Your task to perform on an android device: turn off translation in the chrome app Image 0: 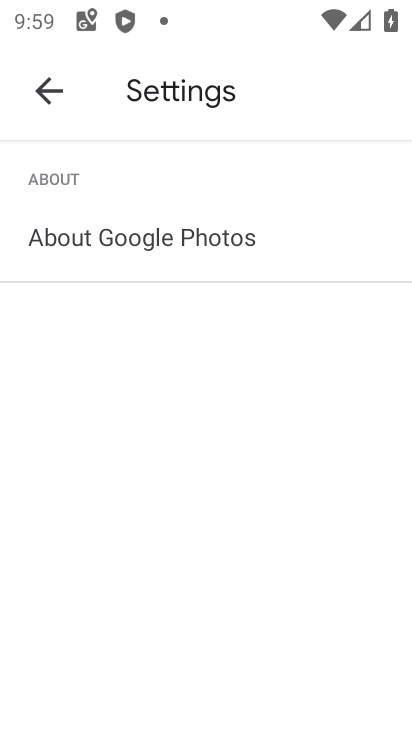
Step 0: press home button
Your task to perform on an android device: turn off translation in the chrome app Image 1: 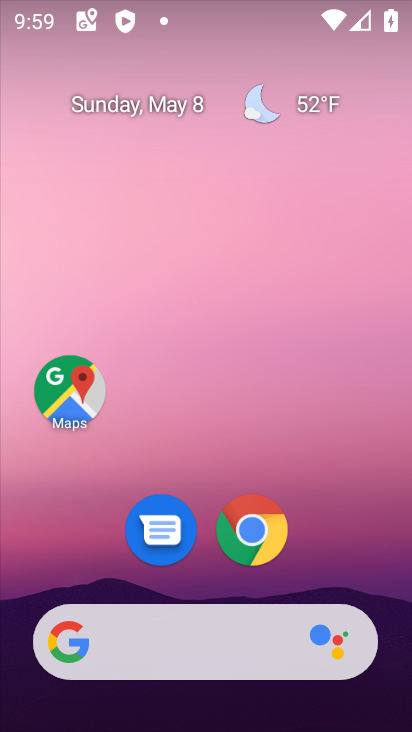
Step 1: drag from (371, 558) to (367, 84)
Your task to perform on an android device: turn off translation in the chrome app Image 2: 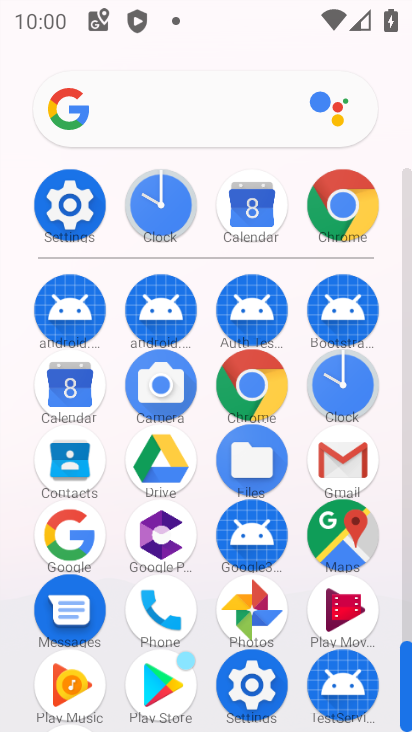
Step 2: click (266, 397)
Your task to perform on an android device: turn off translation in the chrome app Image 3: 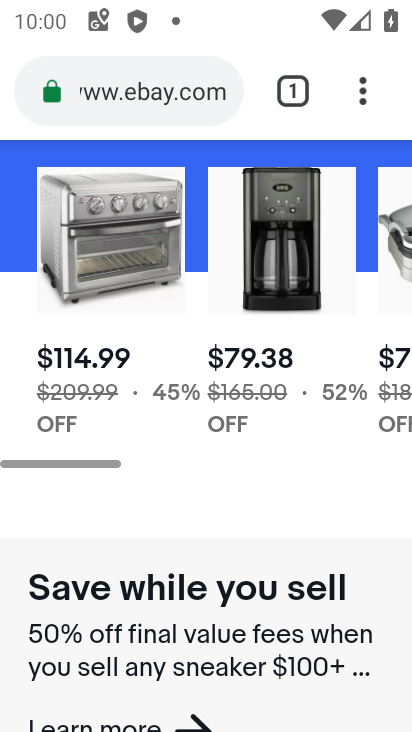
Step 3: drag from (363, 100) to (188, 549)
Your task to perform on an android device: turn off translation in the chrome app Image 4: 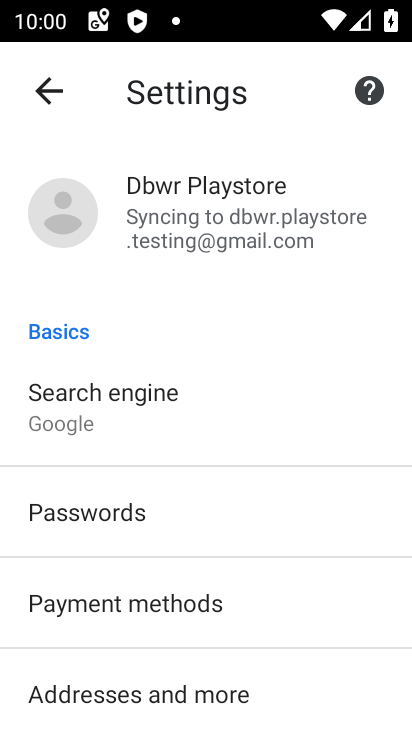
Step 4: drag from (298, 646) to (300, 380)
Your task to perform on an android device: turn off translation in the chrome app Image 5: 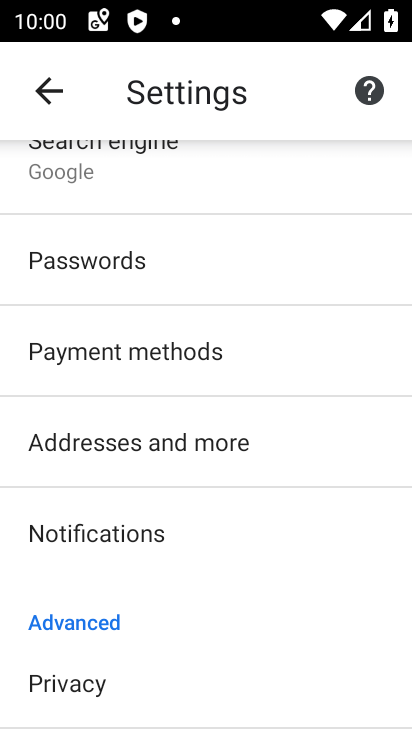
Step 5: drag from (267, 667) to (297, 356)
Your task to perform on an android device: turn off translation in the chrome app Image 6: 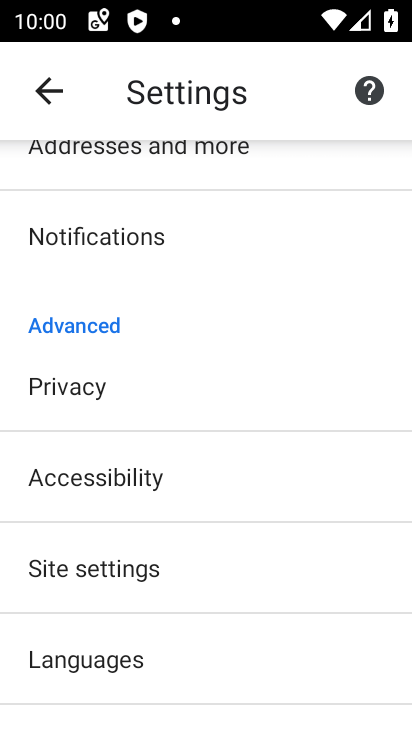
Step 6: drag from (253, 684) to (298, 309)
Your task to perform on an android device: turn off translation in the chrome app Image 7: 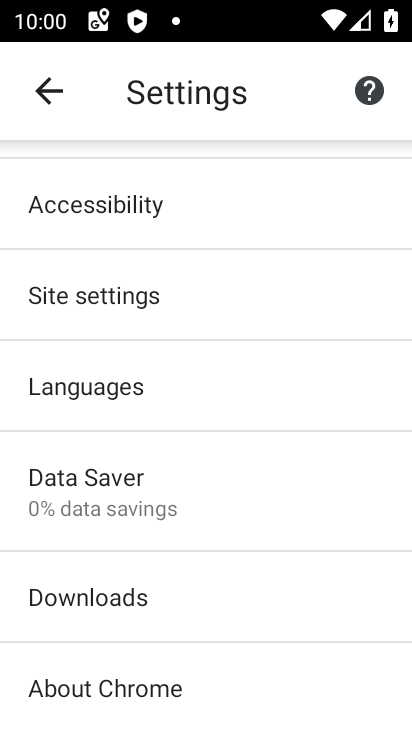
Step 7: drag from (276, 703) to (315, 373)
Your task to perform on an android device: turn off translation in the chrome app Image 8: 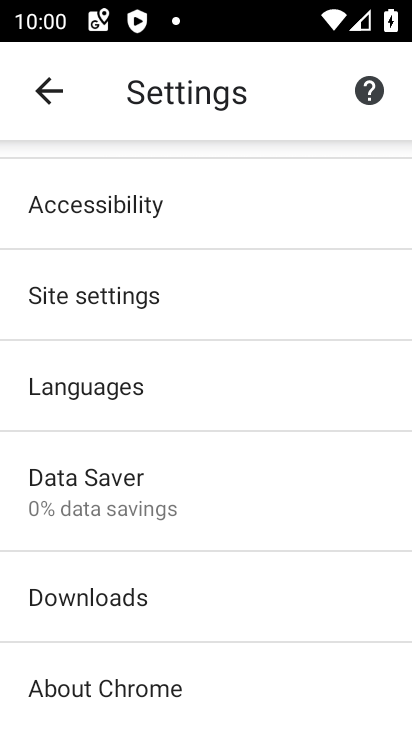
Step 8: click (97, 402)
Your task to perform on an android device: turn off translation in the chrome app Image 9: 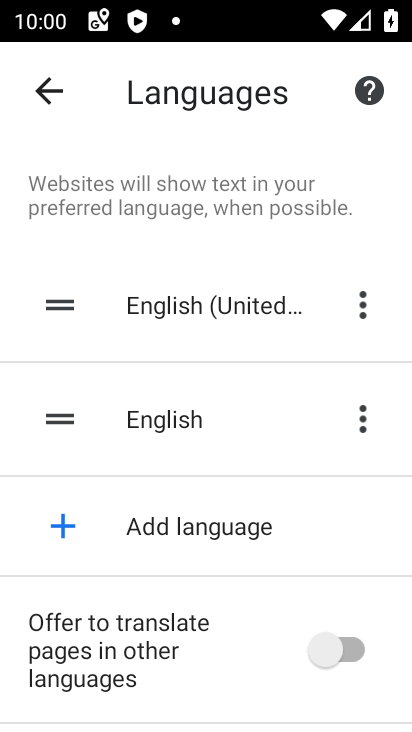
Step 9: task complete